Your task to perform on an android device: Turn off the flashlight Image 0: 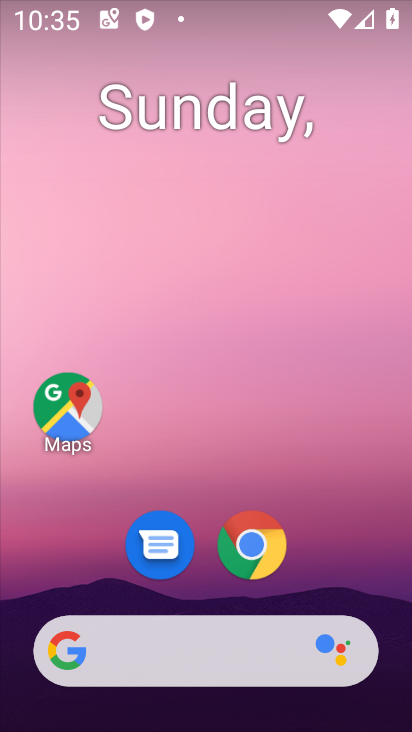
Step 0: drag from (378, 7) to (336, 637)
Your task to perform on an android device: Turn off the flashlight Image 1: 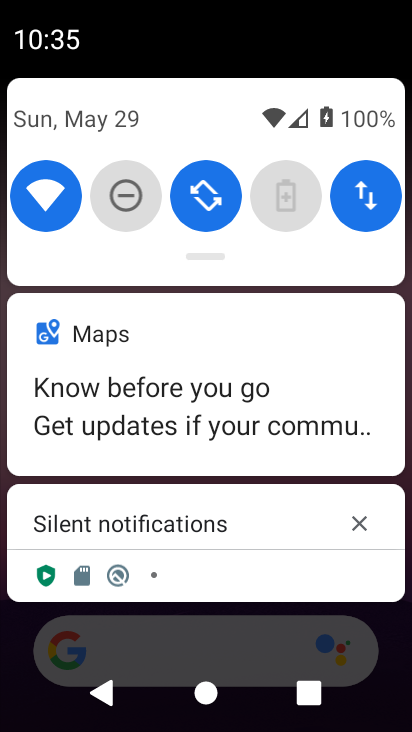
Step 1: task complete